Your task to perform on an android device: Search for sushi restaurants on Maps Image 0: 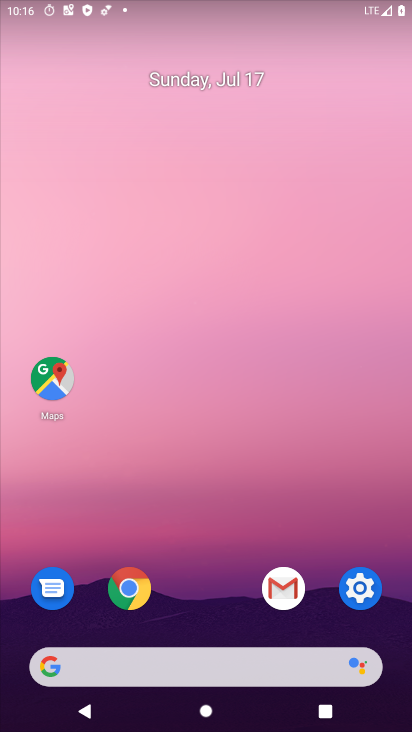
Step 0: press home button
Your task to perform on an android device: Search for sushi restaurants on Maps Image 1: 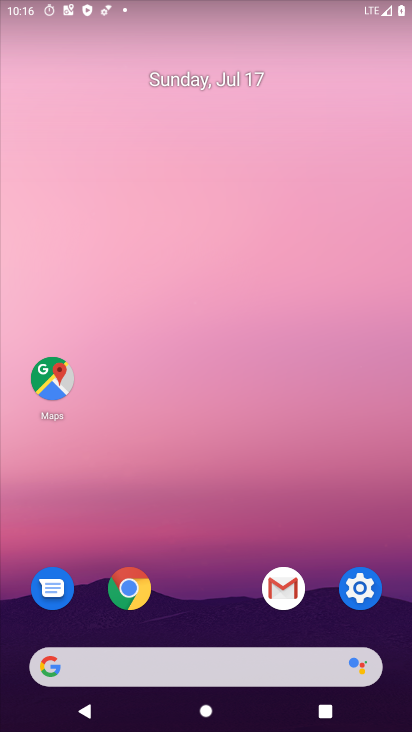
Step 1: click (67, 372)
Your task to perform on an android device: Search for sushi restaurants on Maps Image 2: 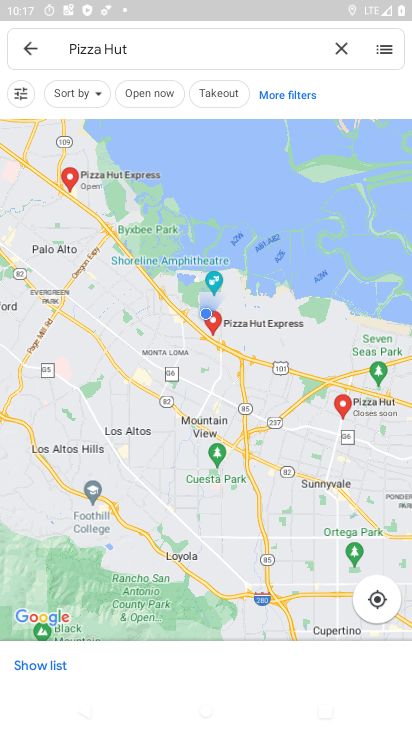
Step 2: click (334, 49)
Your task to perform on an android device: Search for sushi restaurants on Maps Image 3: 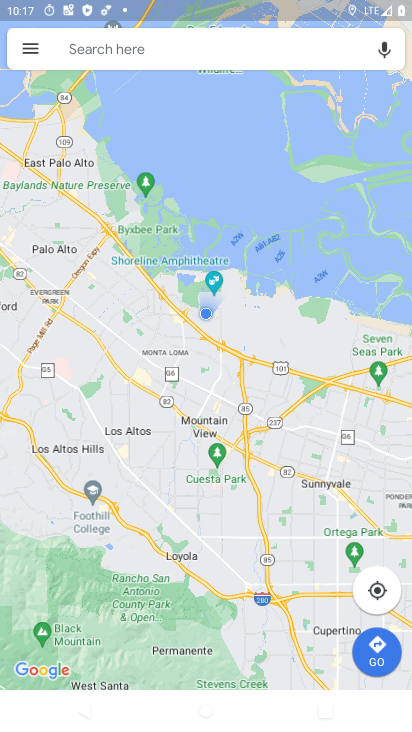
Step 3: click (190, 63)
Your task to perform on an android device: Search for sushi restaurants on Maps Image 4: 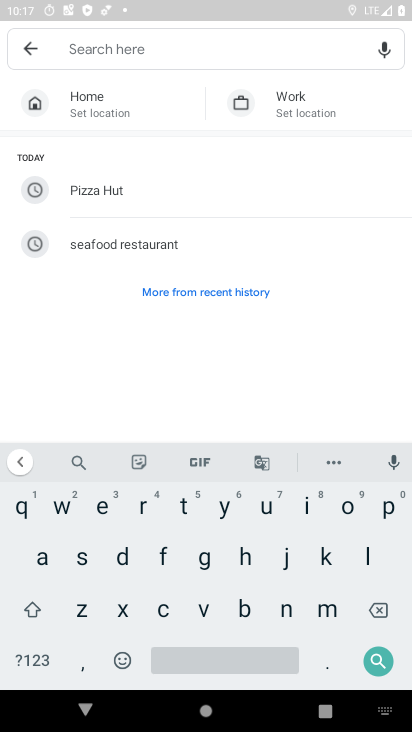
Step 4: click (89, 560)
Your task to perform on an android device: Search for sushi restaurants on Maps Image 5: 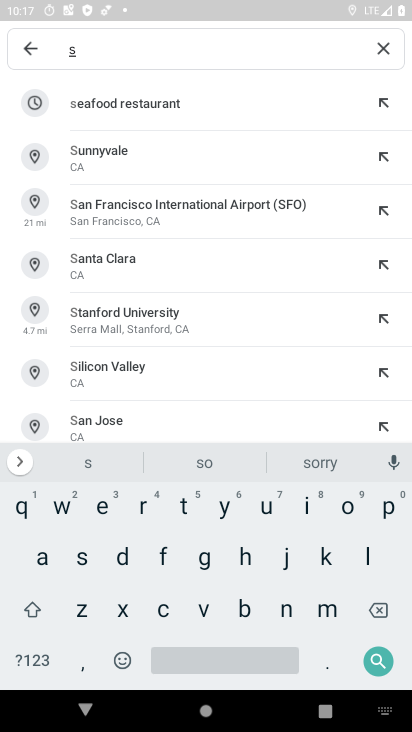
Step 5: click (268, 504)
Your task to perform on an android device: Search for sushi restaurants on Maps Image 6: 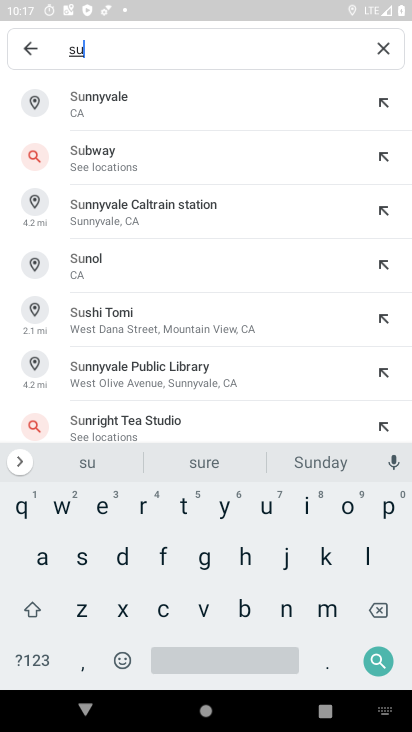
Step 6: click (85, 560)
Your task to perform on an android device: Search for sushi restaurants on Maps Image 7: 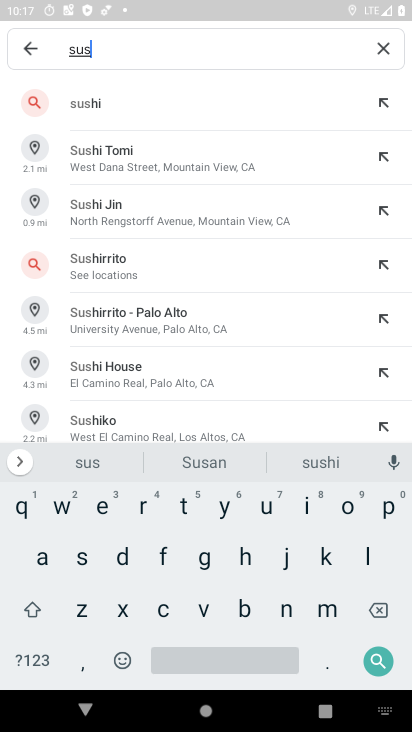
Step 7: click (148, 104)
Your task to perform on an android device: Search for sushi restaurants on Maps Image 8: 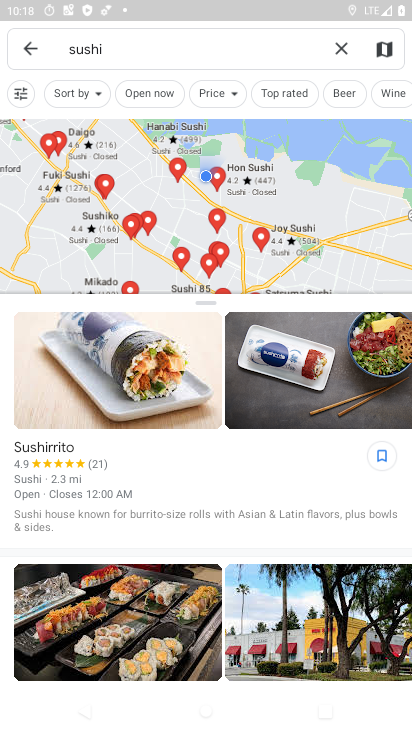
Step 8: task complete